Your task to perform on an android device: set an alarm Image 0: 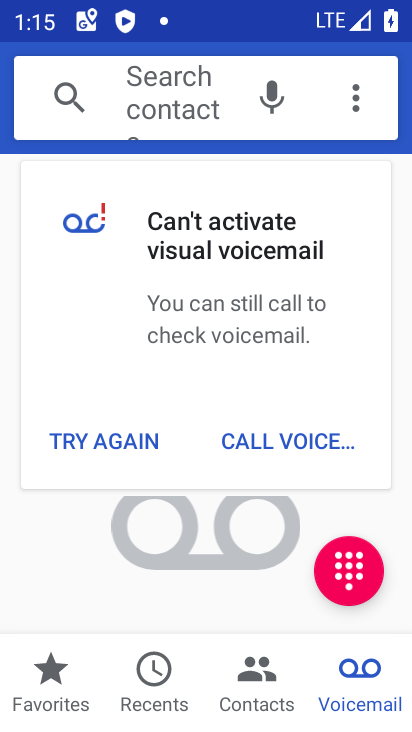
Step 0: press home button
Your task to perform on an android device: set an alarm Image 1: 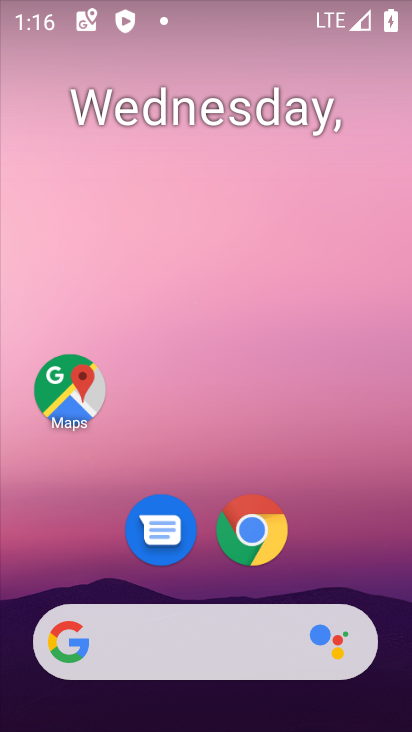
Step 1: drag from (352, 576) to (324, 188)
Your task to perform on an android device: set an alarm Image 2: 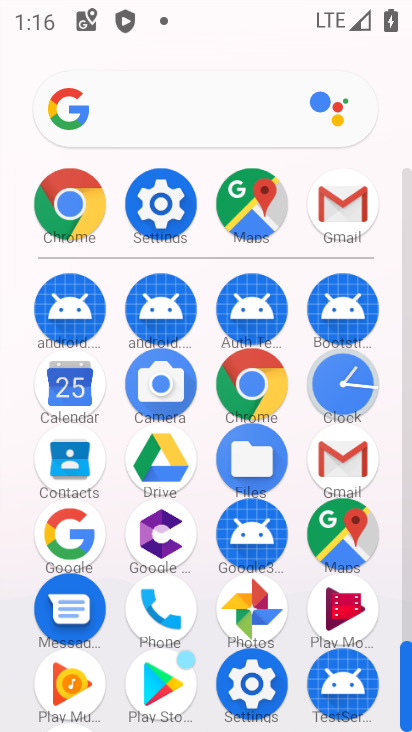
Step 2: click (352, 390)
Your task to perform on an android device: set an alarm Image 3: 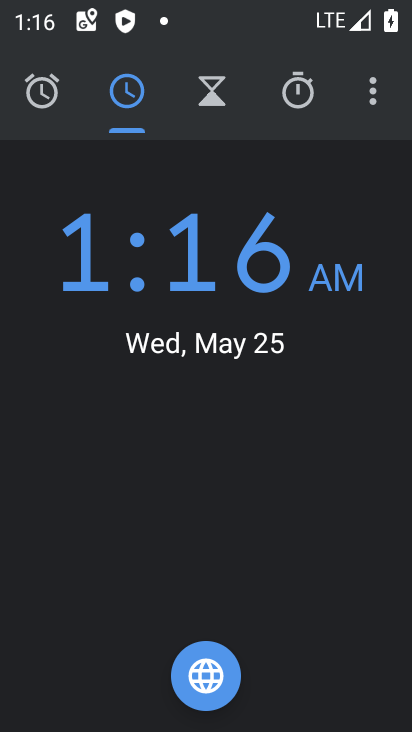
Step 3: click (34, 92)
Your task to perform on an android device: set an alarm Image 4: 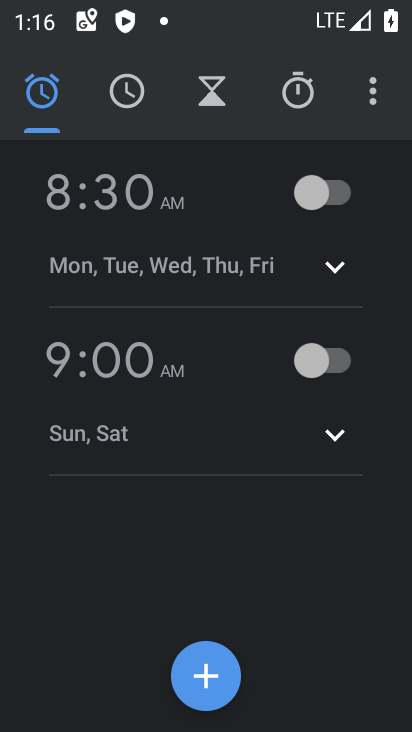
Step 4: click (229, 680)
Your task to perform on an android device: set an alarm Image 5: 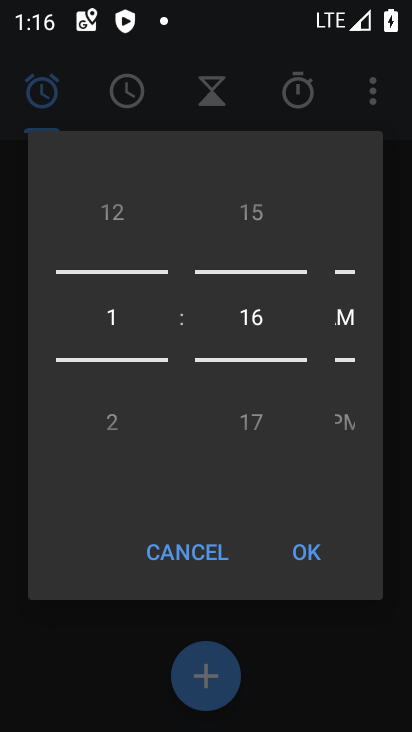
Step 5: click (320, 557)
Your task to perform on an android device: set an alarm Image 6: 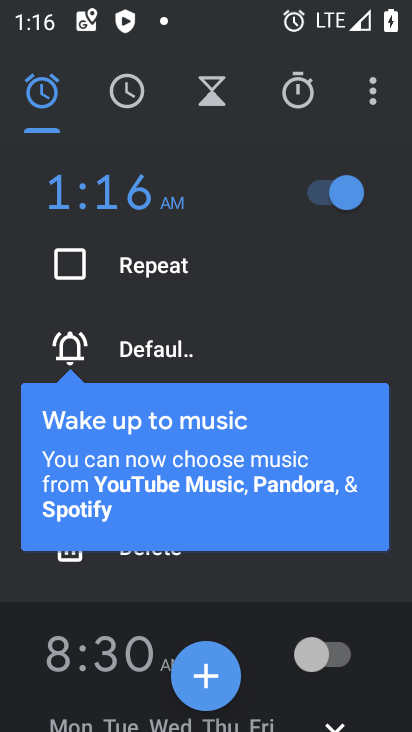
Step 6: task complete